Your task to perform on an android device: Open the calendar app, open the side menu, and click the "Day" option Image 0: 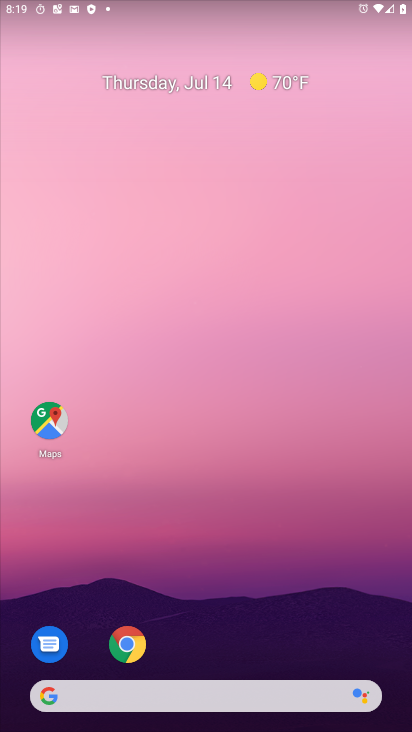
Step 0: drag from (216, 698) to (364, 189)
Your task to perform on an android device: Open the calendar app, open the side menu, and click the "Day" option Image 1: 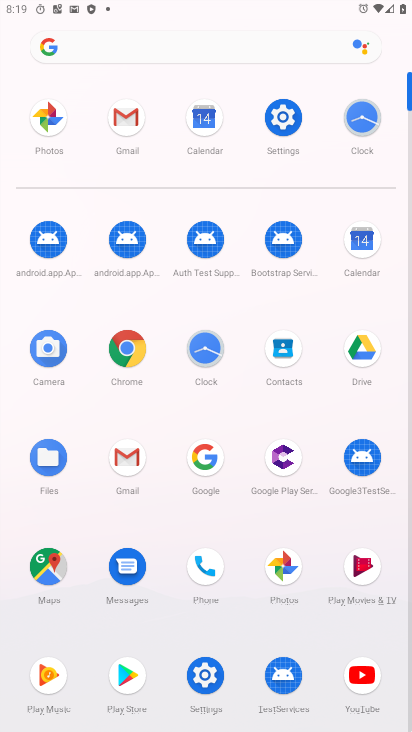
Step 1: click (369, 245)
Your task to perform on an android device: Open the calendar app, open the side menu, and click the "Day" option Image 2: 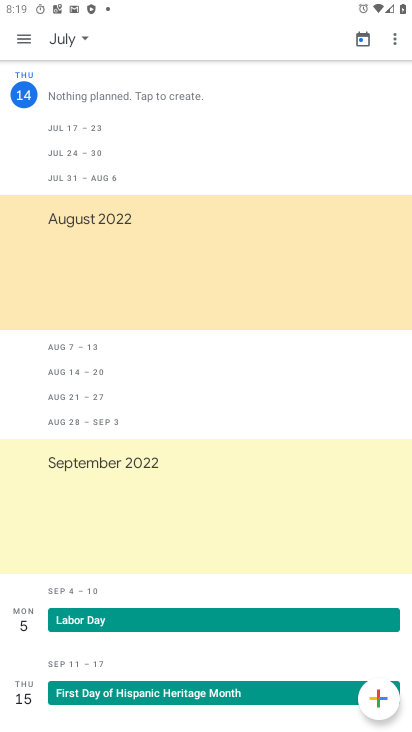
Step 2: click (24, 37)
Your task to perform on an android device: Open the calendar app, open the side menu, and click the "Day" option Image 3: 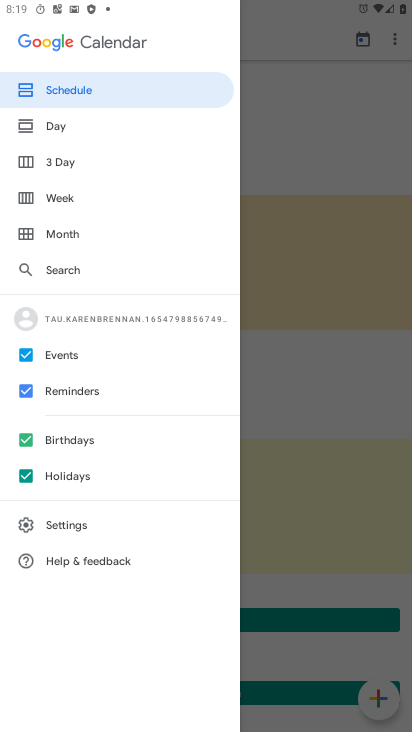
Step 3: click (54, 130)
Your task to perform on an android device: Open the calendar app, open the side menu, and click the "Day" option Image 4: 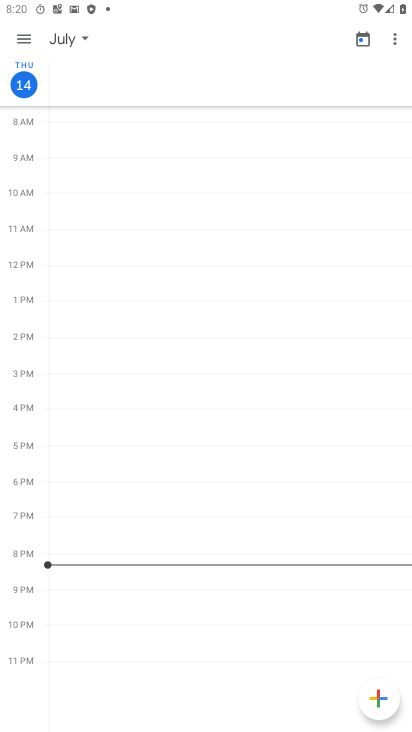
Step 4: task complete